Your task to perform on an android device: set the stopwatch Image 0: 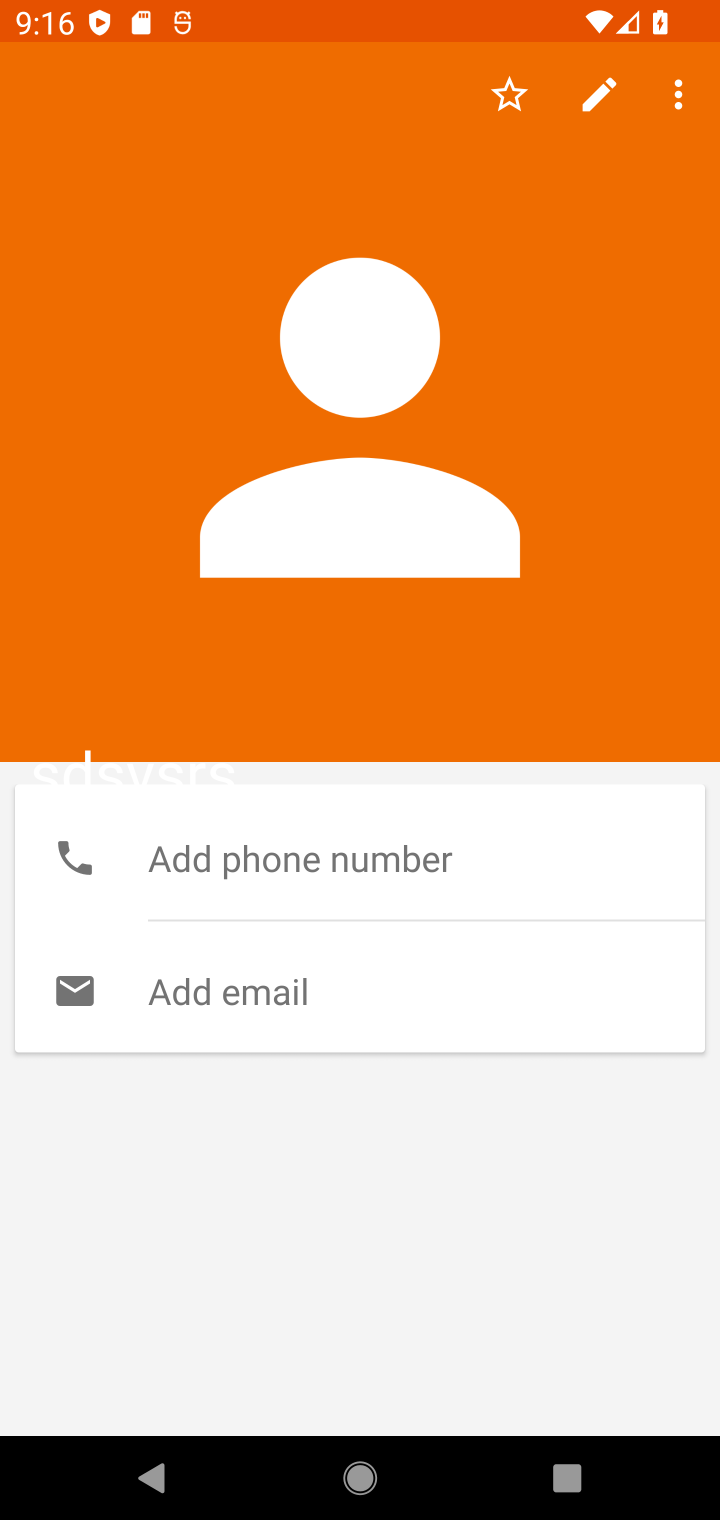
Step 0: press home button
Your task to perform on an android device: set the stopwatch Image 1: 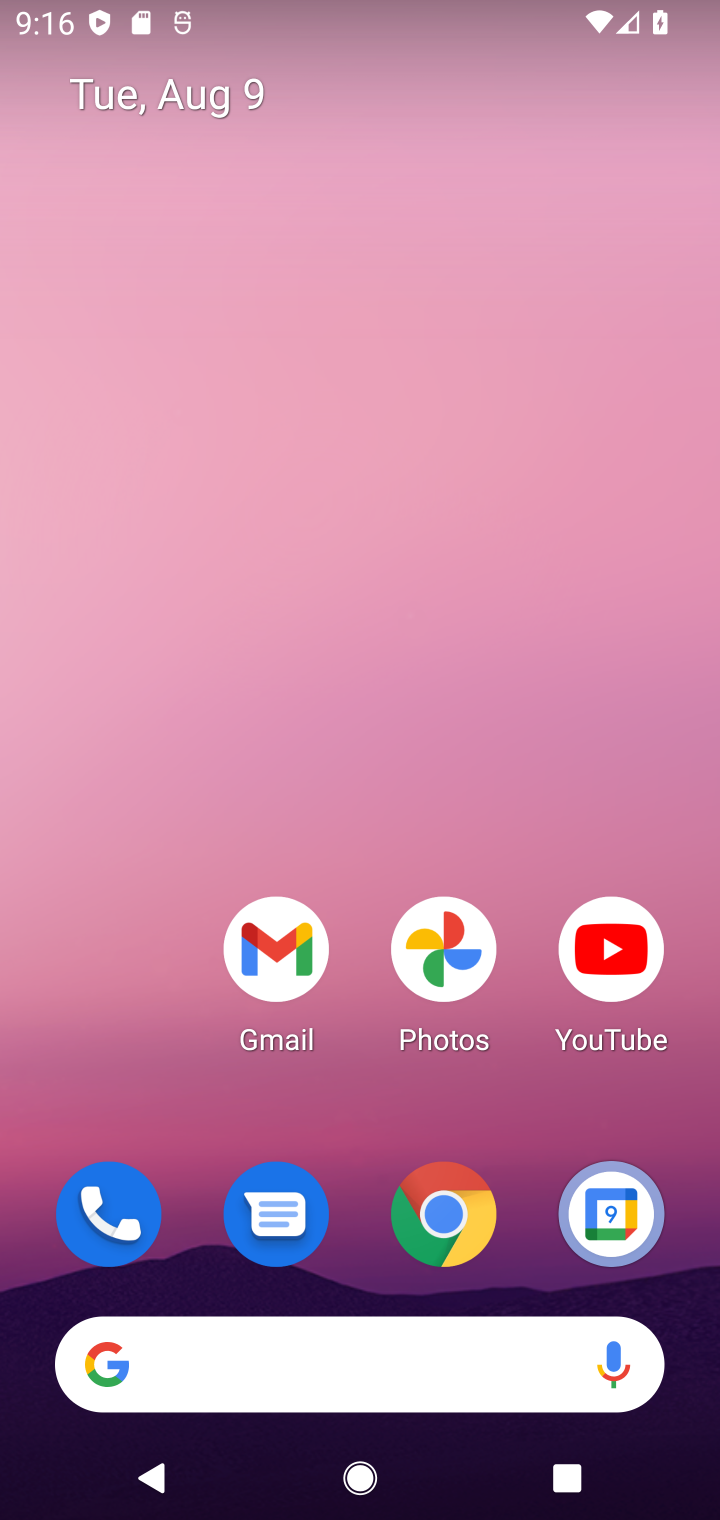
Step 1: drag from (58, 1410) to (297, 217)
Your task to perform on an android device: set the stopwatch Image 2: 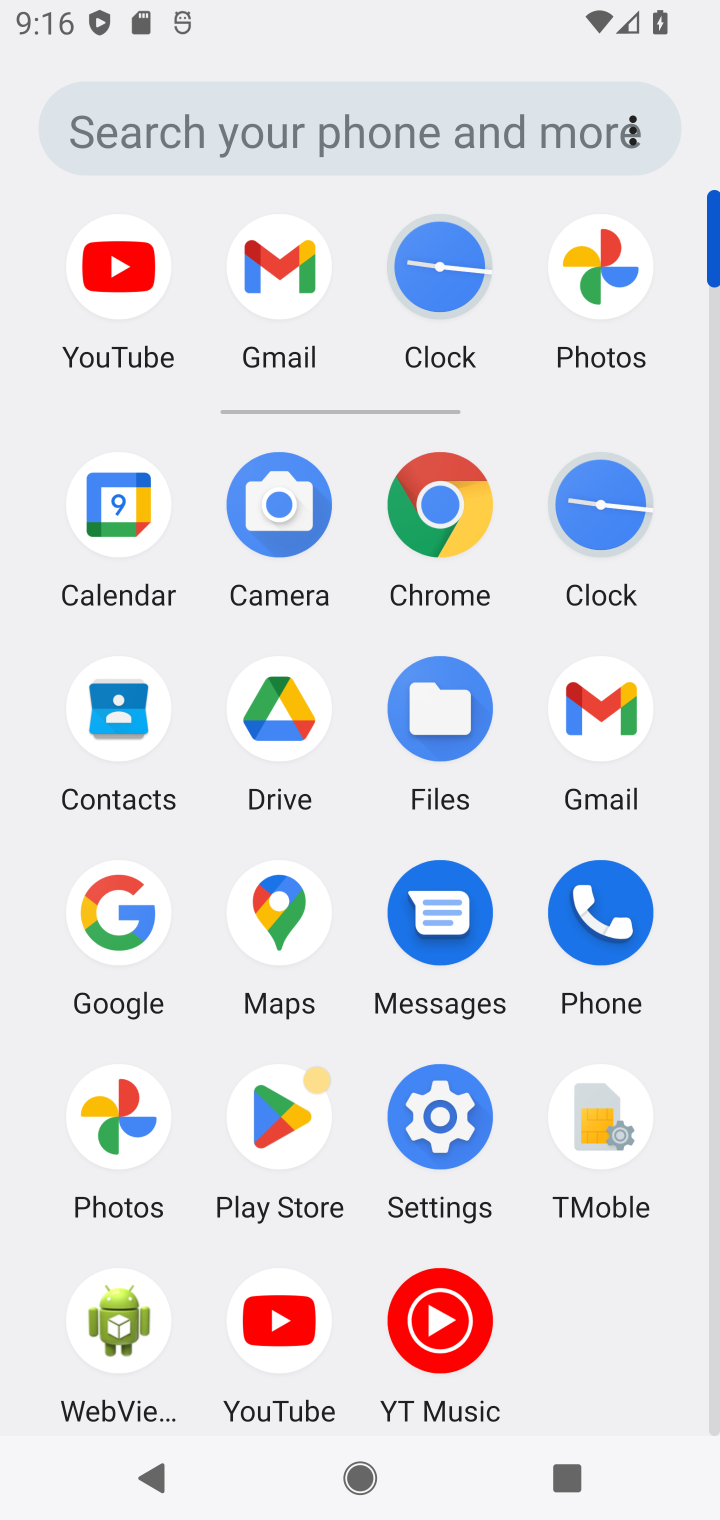
Step 2: click (613, 547)
Your task to perform on an android device: set the stopwatch Image 3: 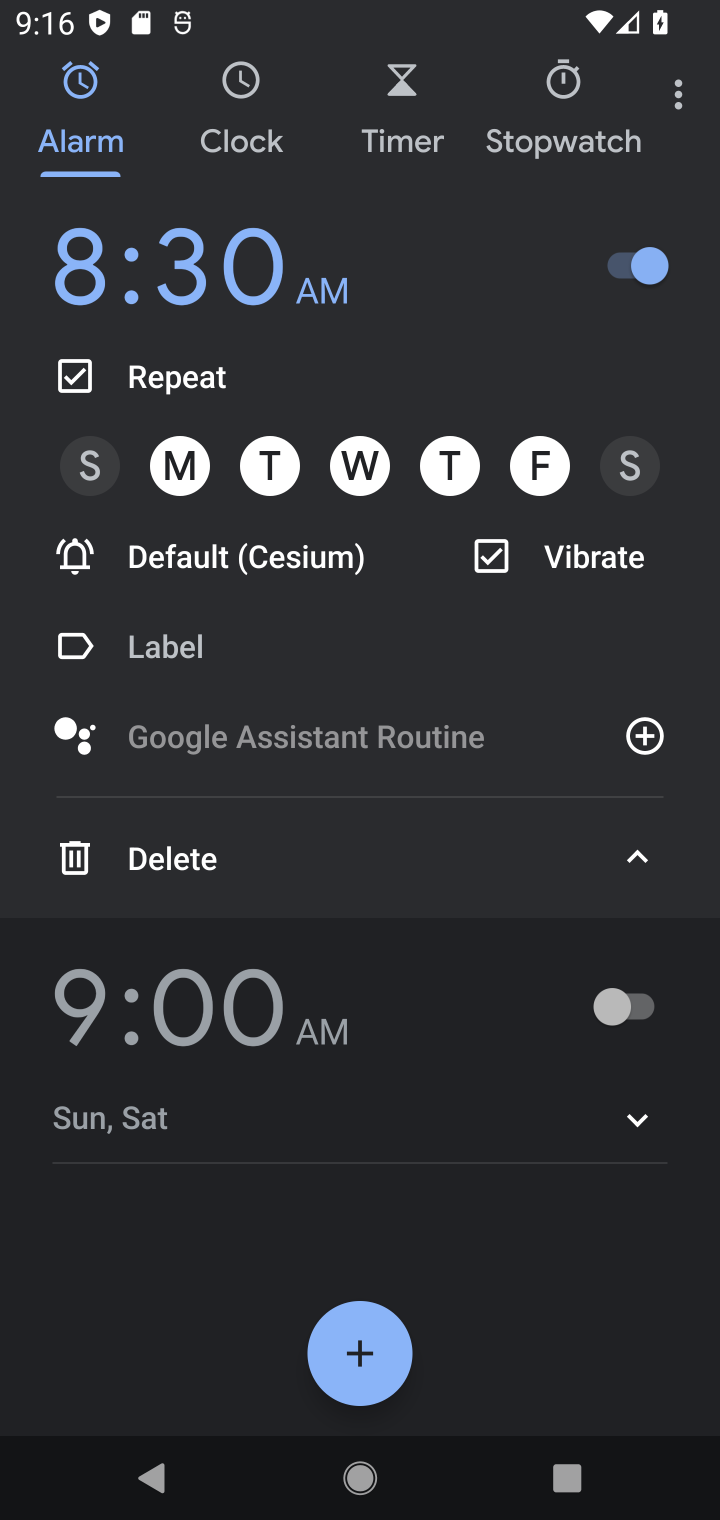
Step 3: click (588, 130)
Your task to perform on an android device: set the stopwatch Image 4: 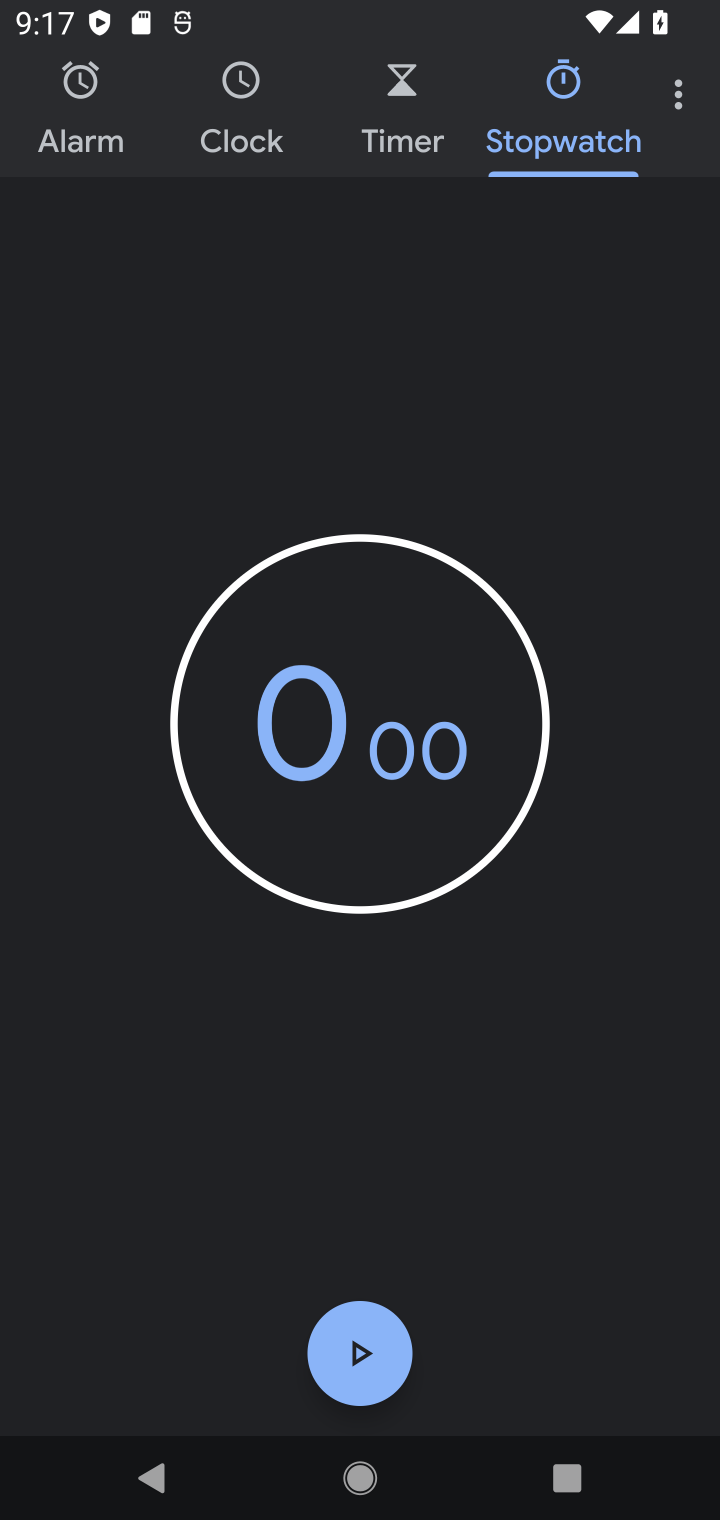
Step 4: click (330, 1384)
Your task to perform on an android device: set the stopwatch Image 5: 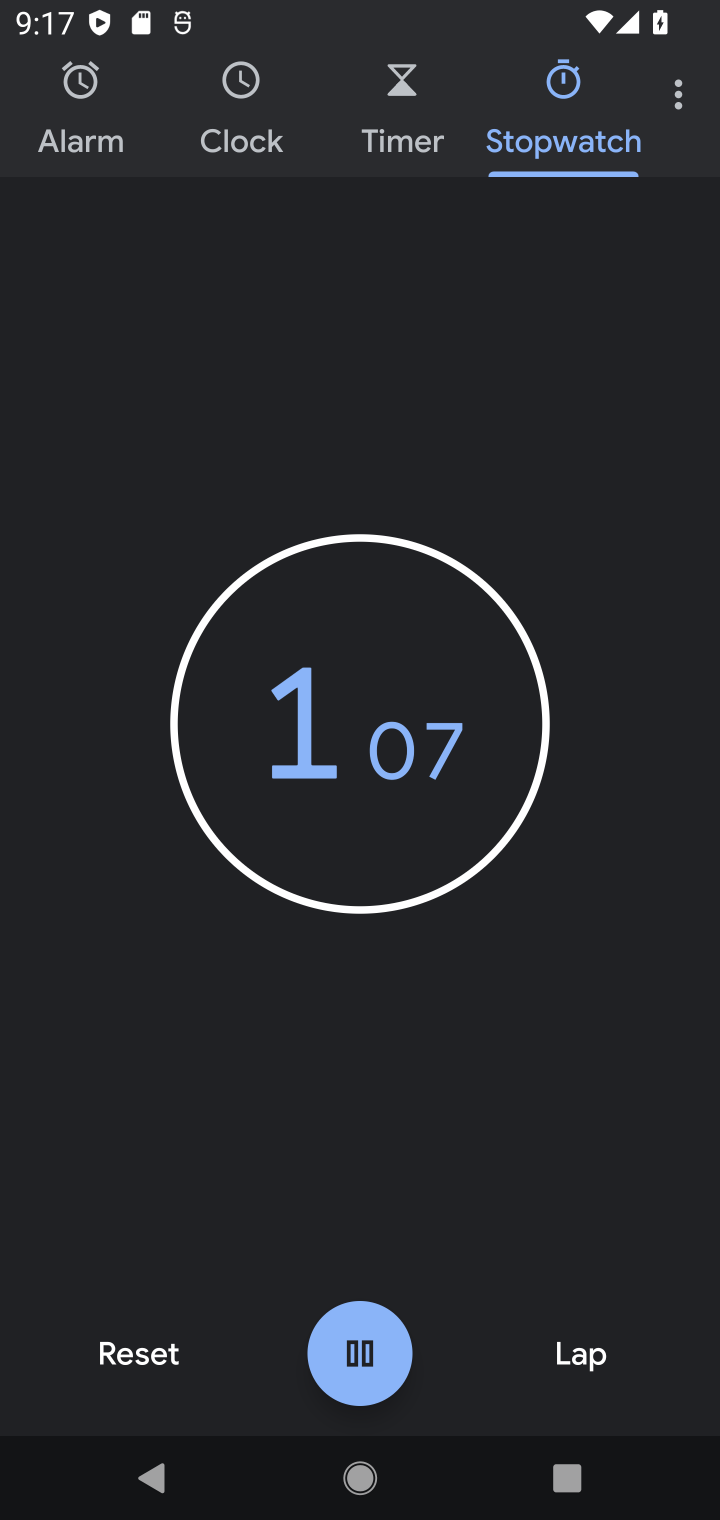
Step 5: click (330, 1384)
Your task to perform on an android device: set the stopwatch Image 6: 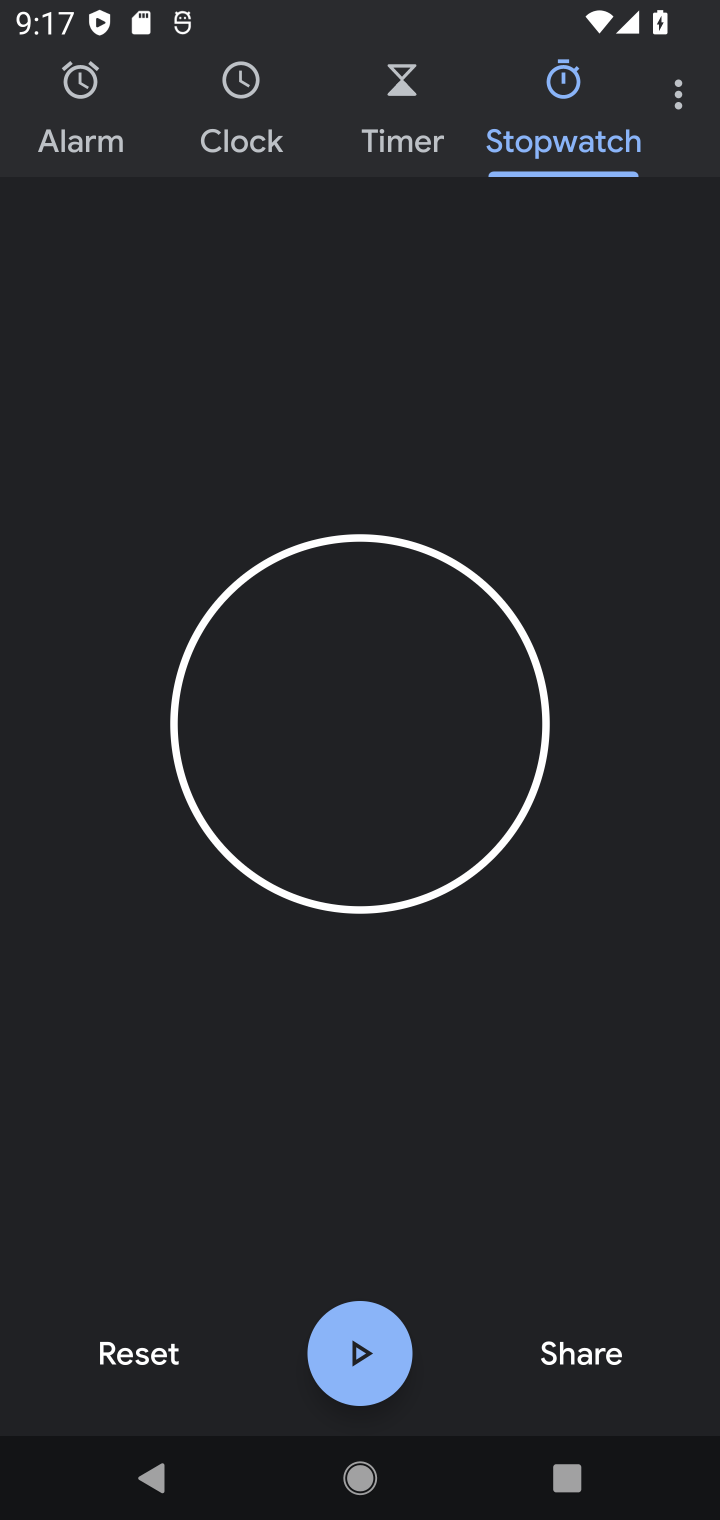
Step 6: task complete